Your task to perform on an android device: Find coffee shops on Maps Image 0: 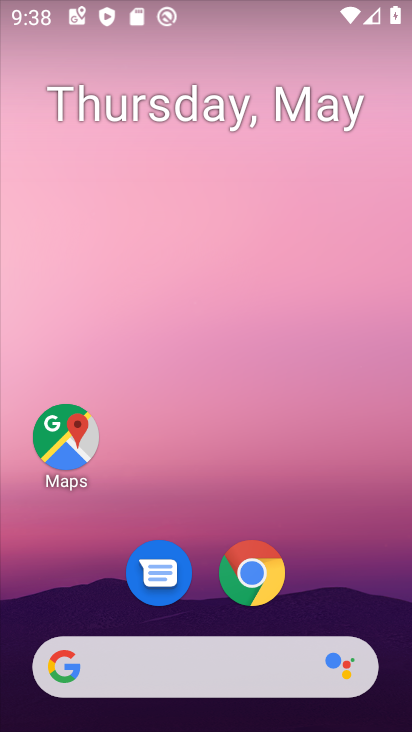
Step 0: click (69, 441)
Your task to perform on an android device: Find coffee shops on Maps Image 1: 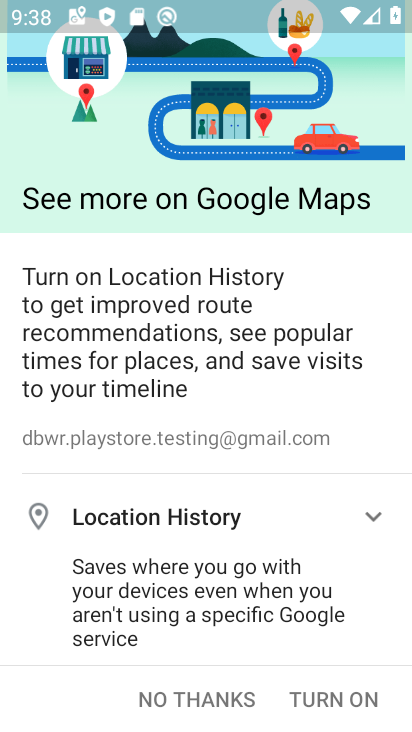
Step 1: click (316, 687)
Your task to perform on an android device: Find coffee shops on Maps Image 2: 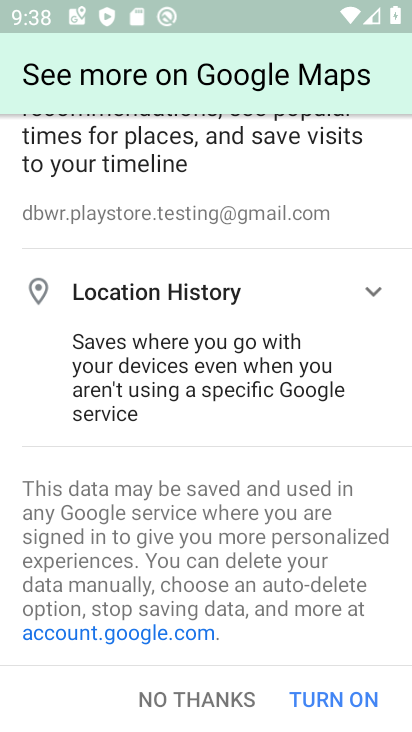
Step 2: click (308, 705)
Your task to perform on an android device: Find coffee shops on Maps Image 3: 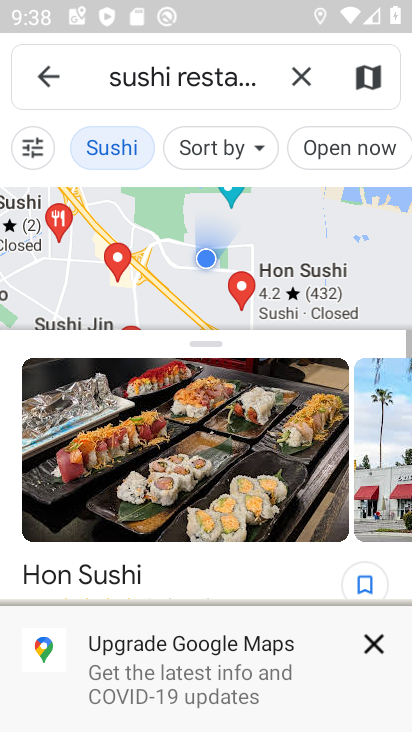
Step 3: click (323, 708)
Your task to perform on an android device: Find coffee shops on Maps Image 4: 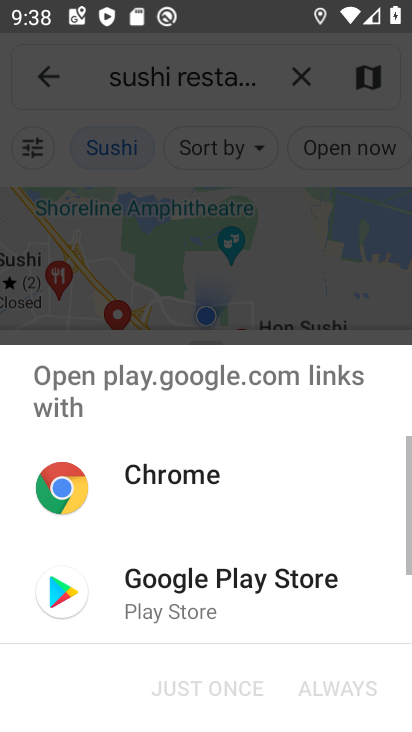
Step 4: click (293, 78)
Your task to perform on an android device: Find coffee shops on Maps Image 5: 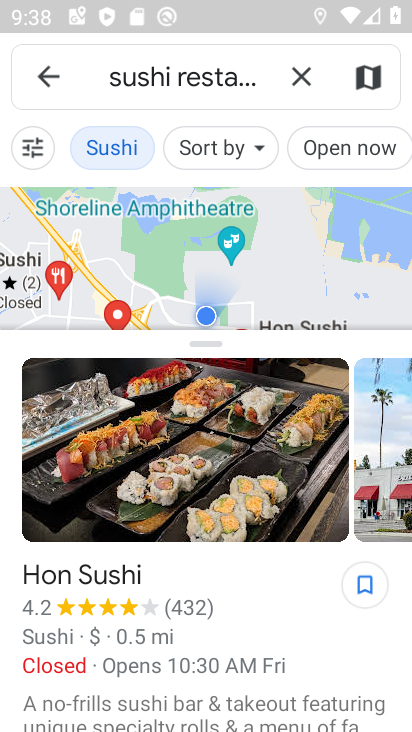
Step 5: click (301, 75)
Your task to perform on an android device: Find coffee shops on Maps Image 6: 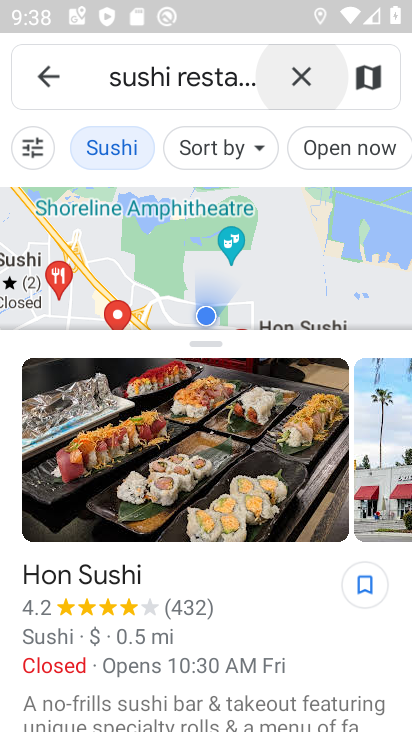
Step 6: click (301, 75)
Your task to perform on an android device: Find coffee shops on Maps Image 7: 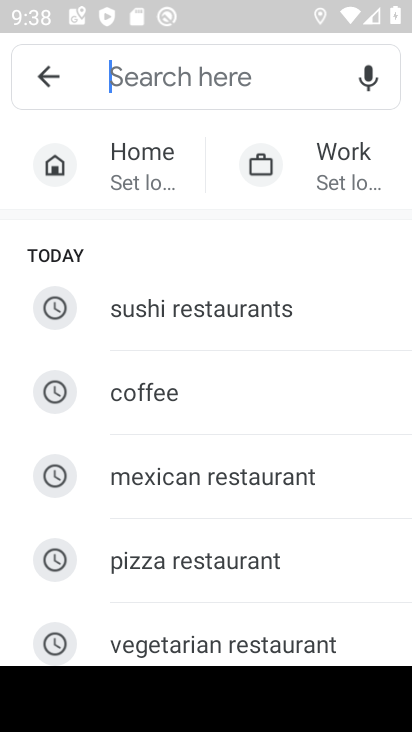
Step 7: type "coffee shops"
Your task to perform on an android device: Find coffee shops on Maps Image 8: 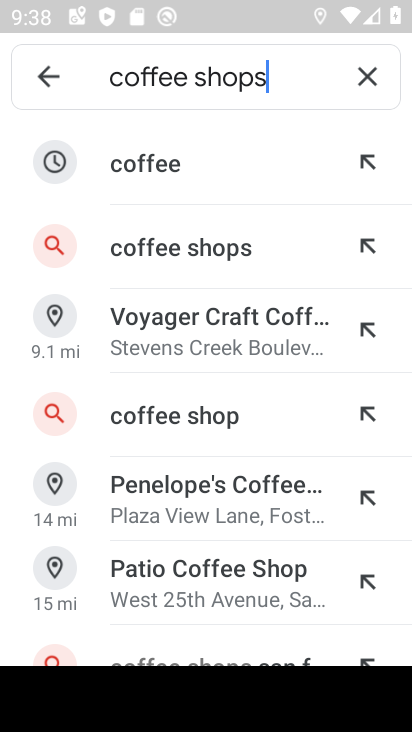
Step 8: click (267, 242)
Your task to perform on an android device: Find coffee shops on Maps Image 9: 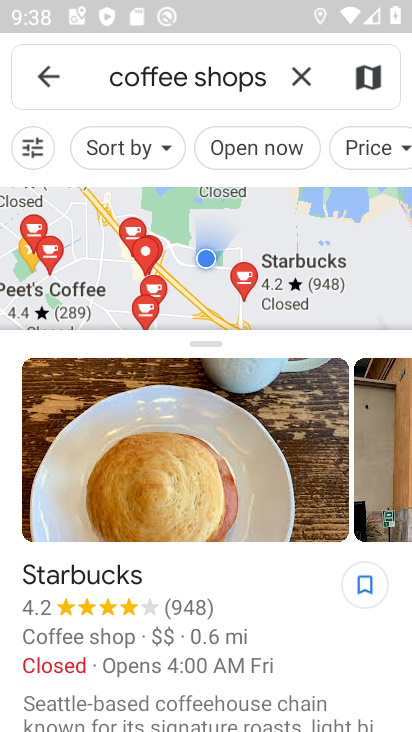
Step 9: task complete